Your task to perform on an android device: refresh tabs in the chrome app Image 0: 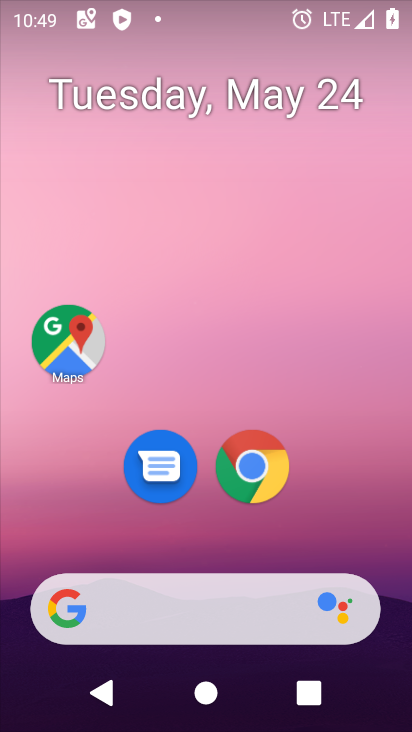
Step 0: drag from (378, 537) to (378, 191)
Your task to perform on an android device: refresh tabs in the chrome app Image 1: 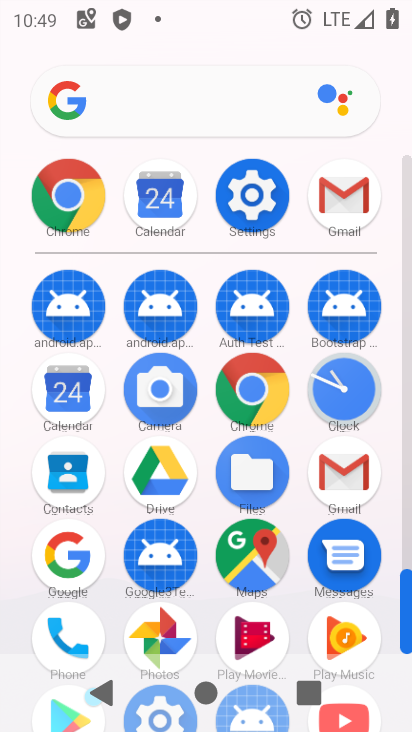
Step 1: click (280, 386)
Your task to perform on an android device: refresh tabs in the chrome app Image 2: 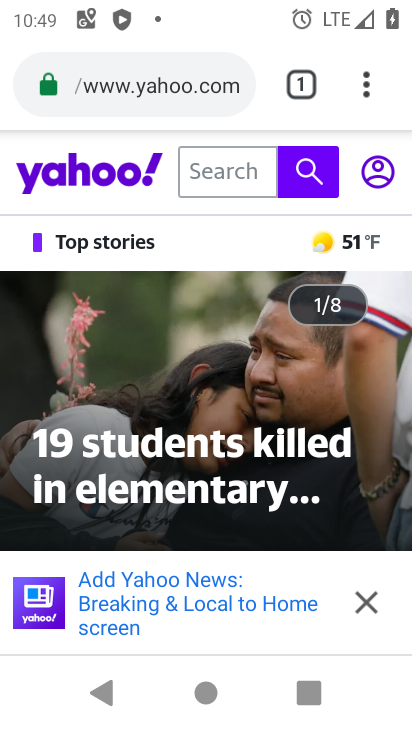
Step 2: click (368, 87)
Your task to perform on an android device: refresh tabs in the chrome app Image 3: 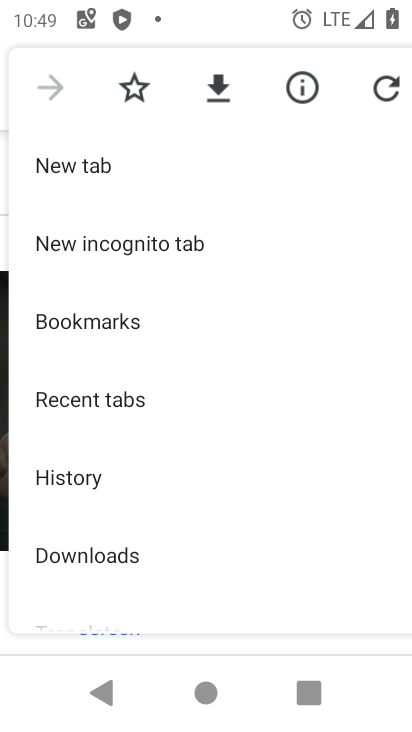
Step 3: click (396, 95)
Your task to perform on an android device: refresh tabs in the chrome app Image 4: 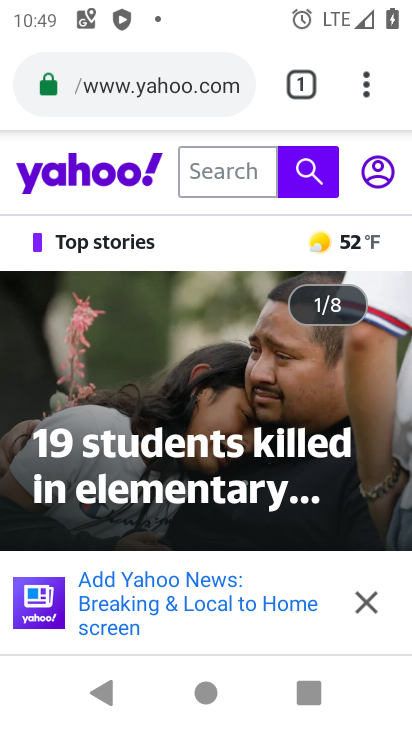
Step 4: task complete